Your task to perform on an android device: open app "Airtel Thanks" (install if not already installed) Image 0: 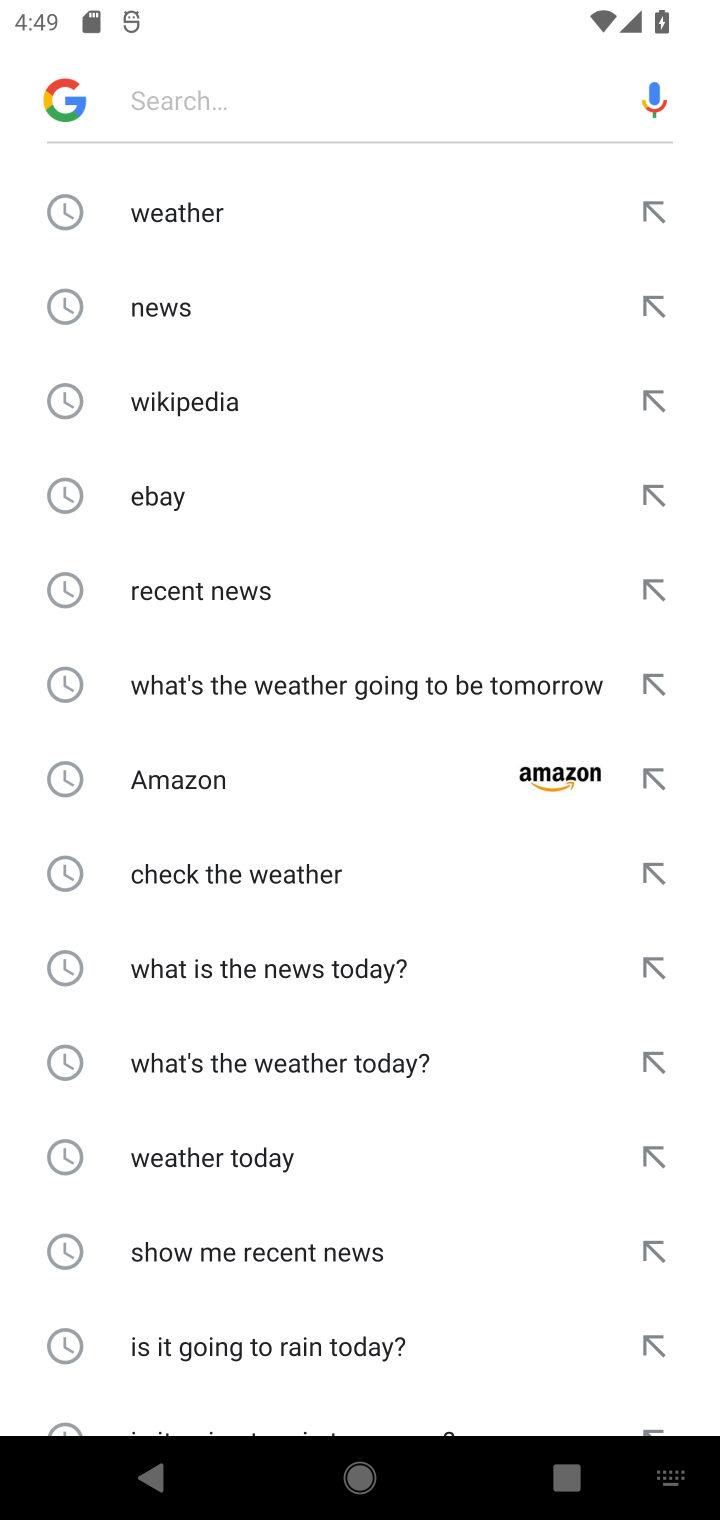
Step 0: press home button
Your task to perform on an android device: open app "Airtel Thanks" (install if not already installed) Image 1: 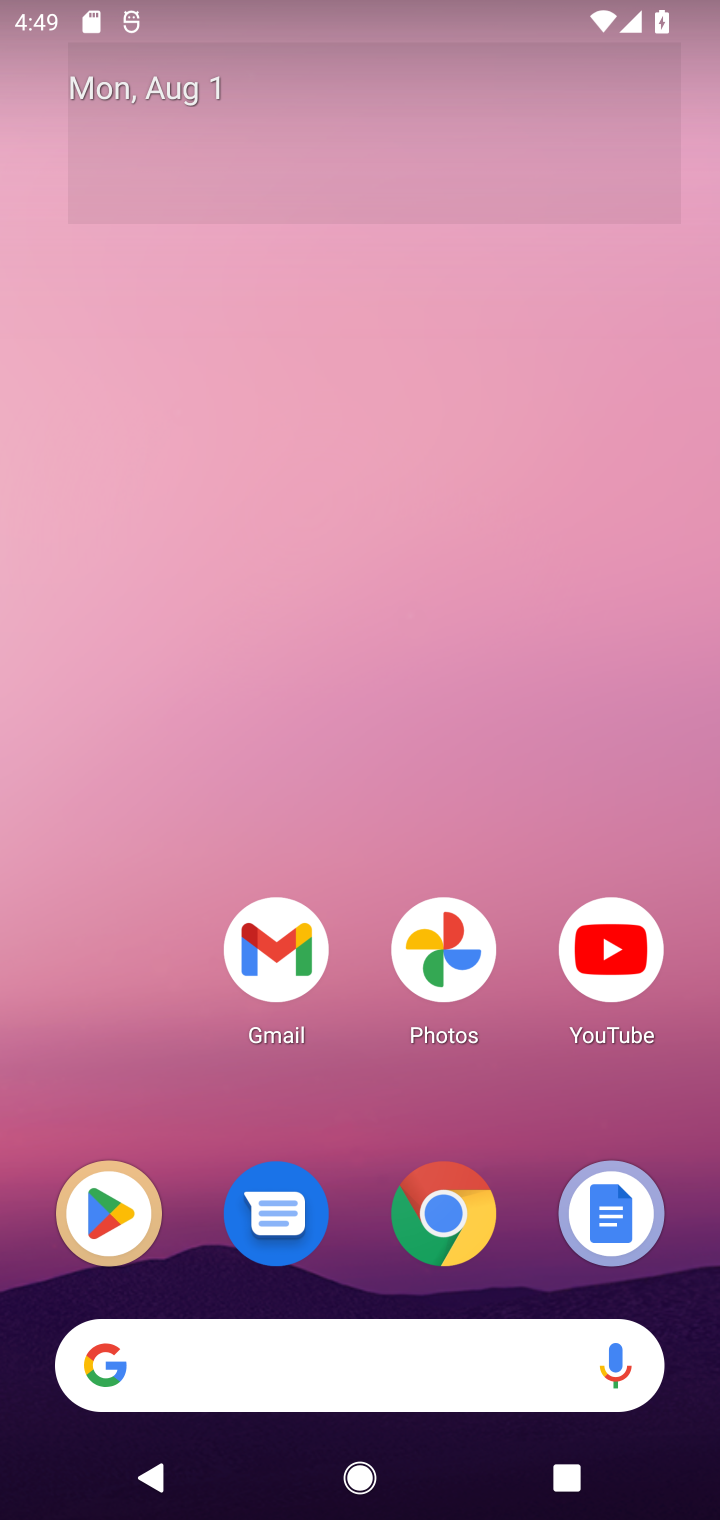
Step 1: drag from (469, 1077) to (538, 108)
Your task to perform on an android device: open app "Airtel Thanks" (install if not already installed) Image 2: 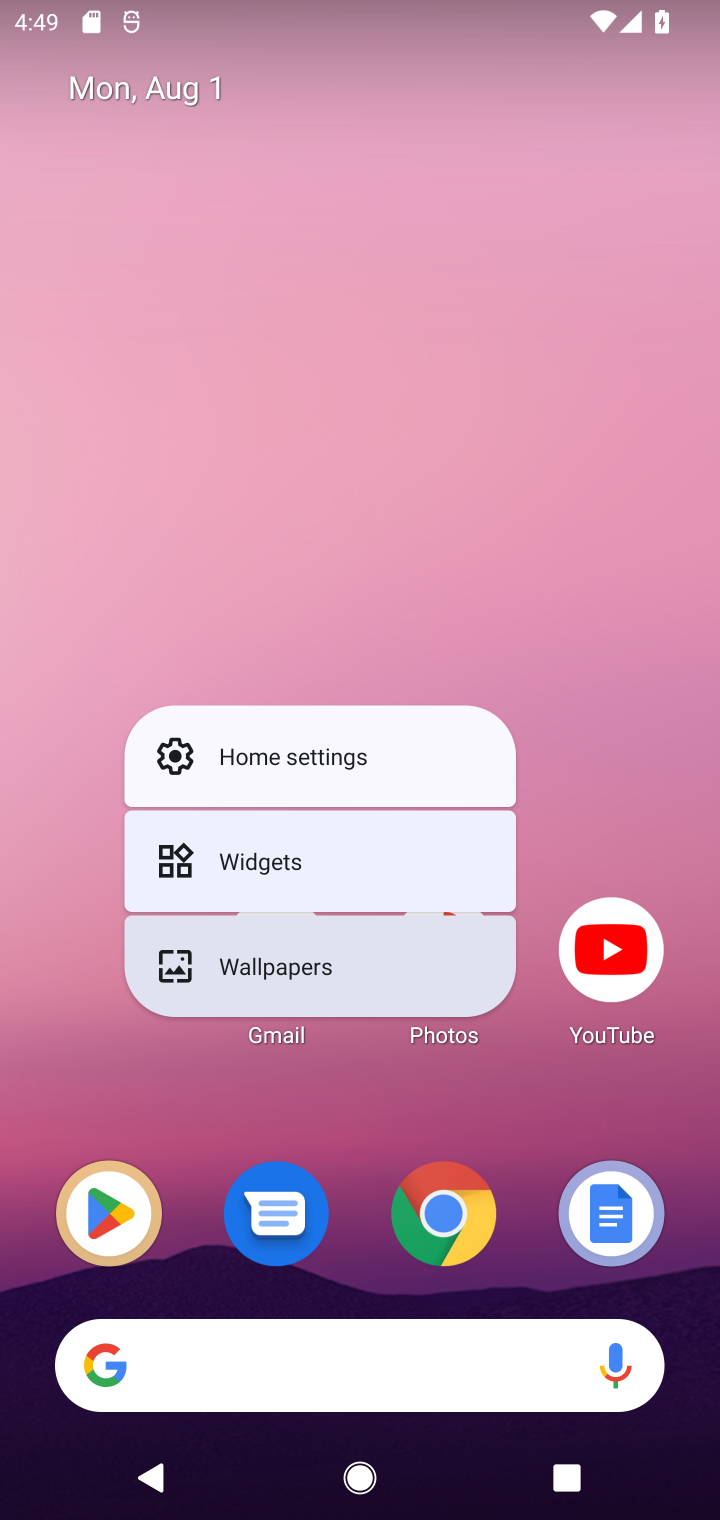
Step 2: click (555, 400)
Your task to perform on an android device: open app "Airtel Thanks" (install if not already installed) Image 3: 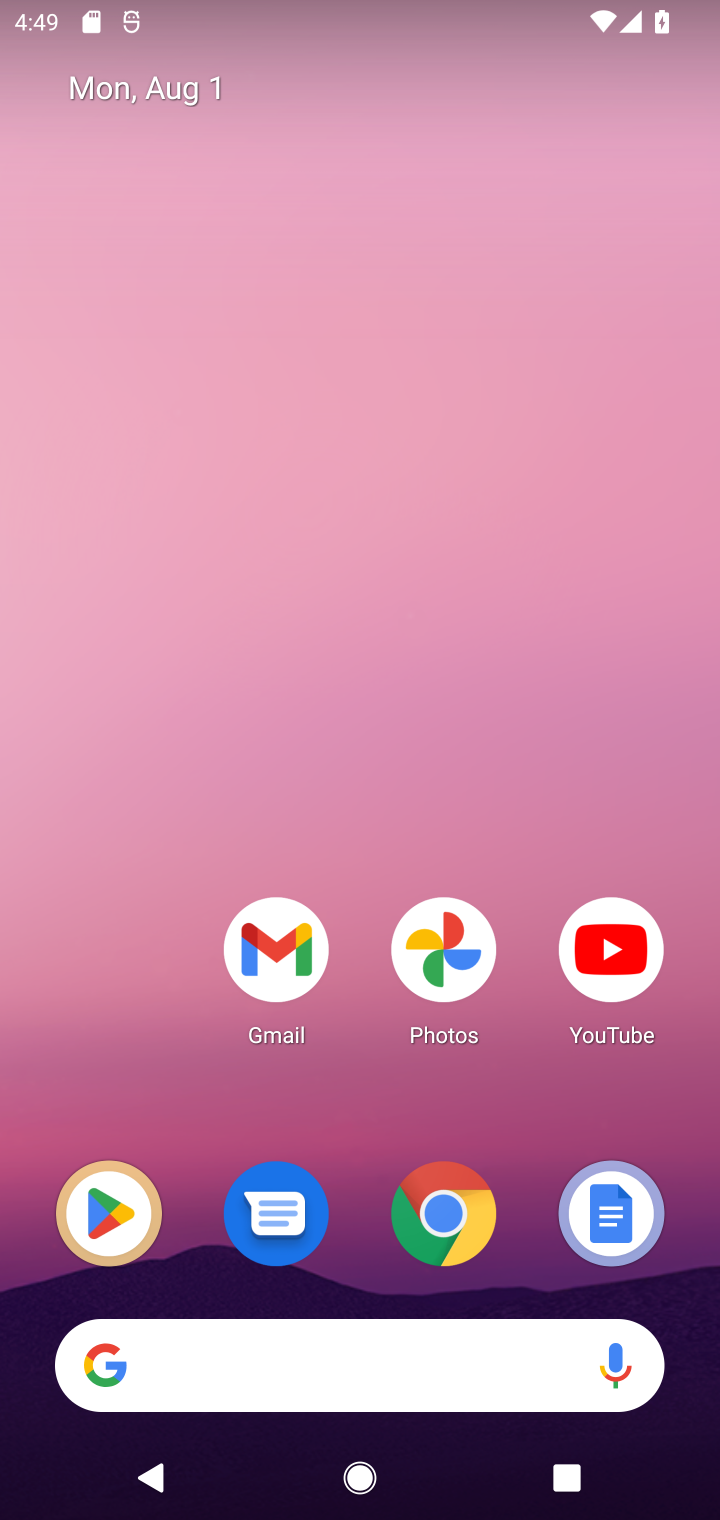
Step 3: drag from (537, 1091) to (552, 0)
Your task to perform on an android device: open app "Airtel Thanks" (install if not already installed) Image 4: 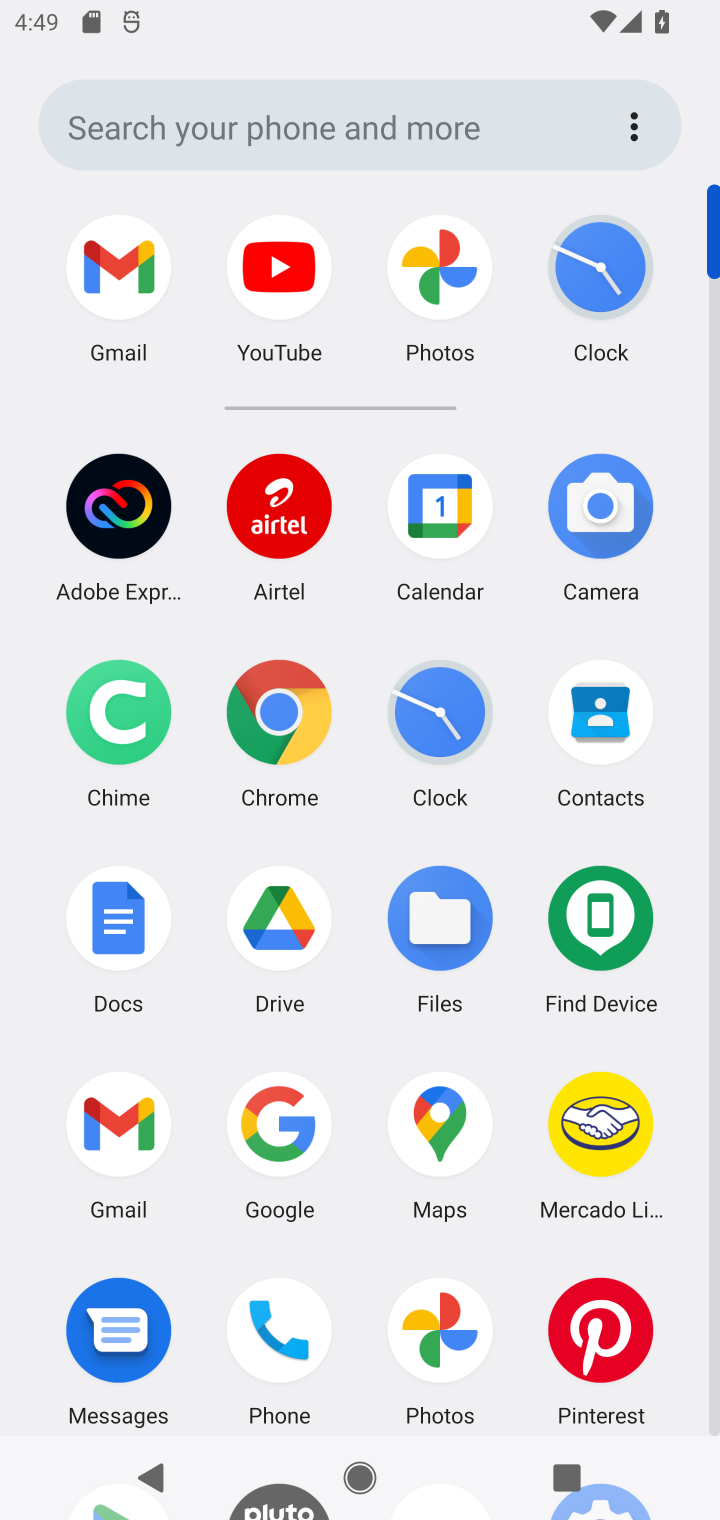
Step 4: drag from (369, 1186) to (453, 418)
Your task to perform on an android device: open app "Airtel Thanks" (install if not already installed) Image 5: 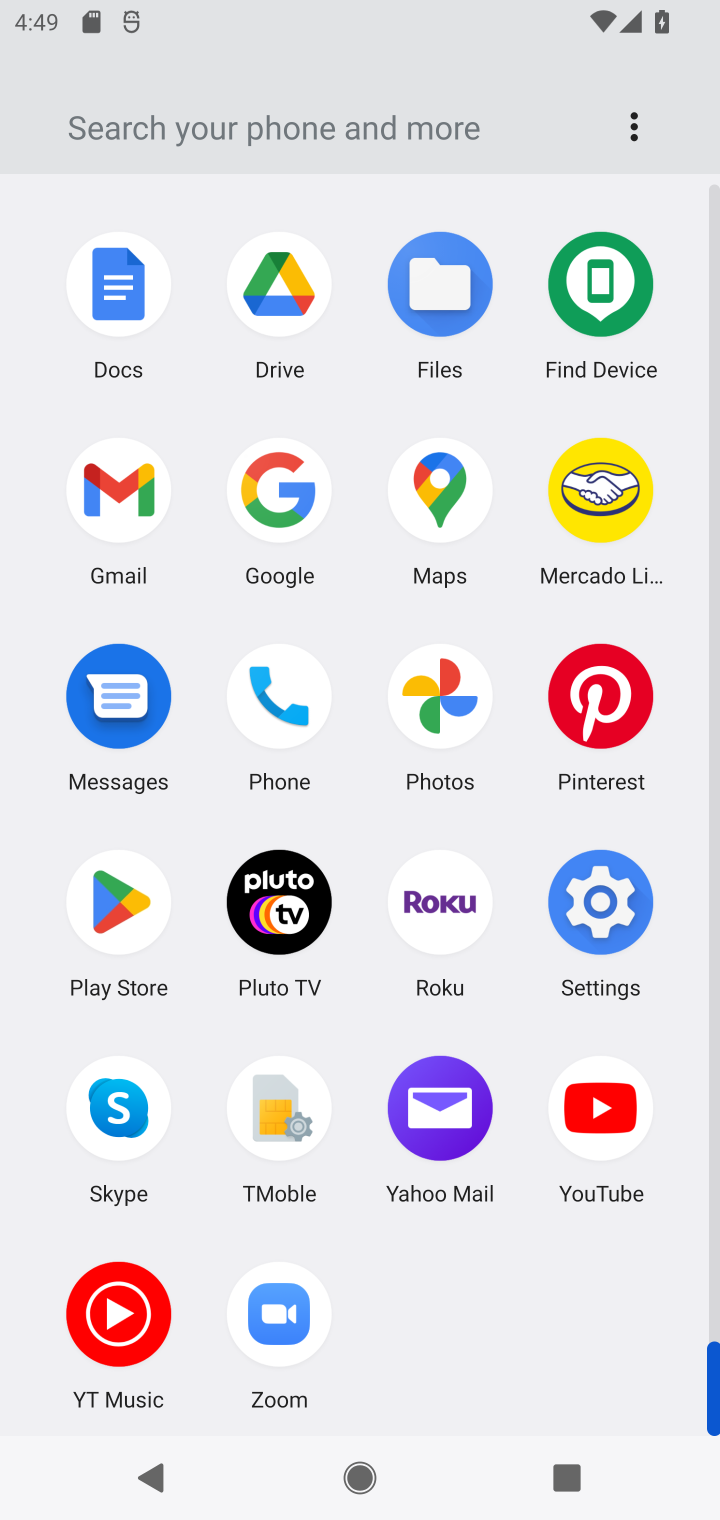
Step 5: click (146, 888)
Your task to perform on an android device: open app "Airtel Thanks" (install if not already installed) Image 6: 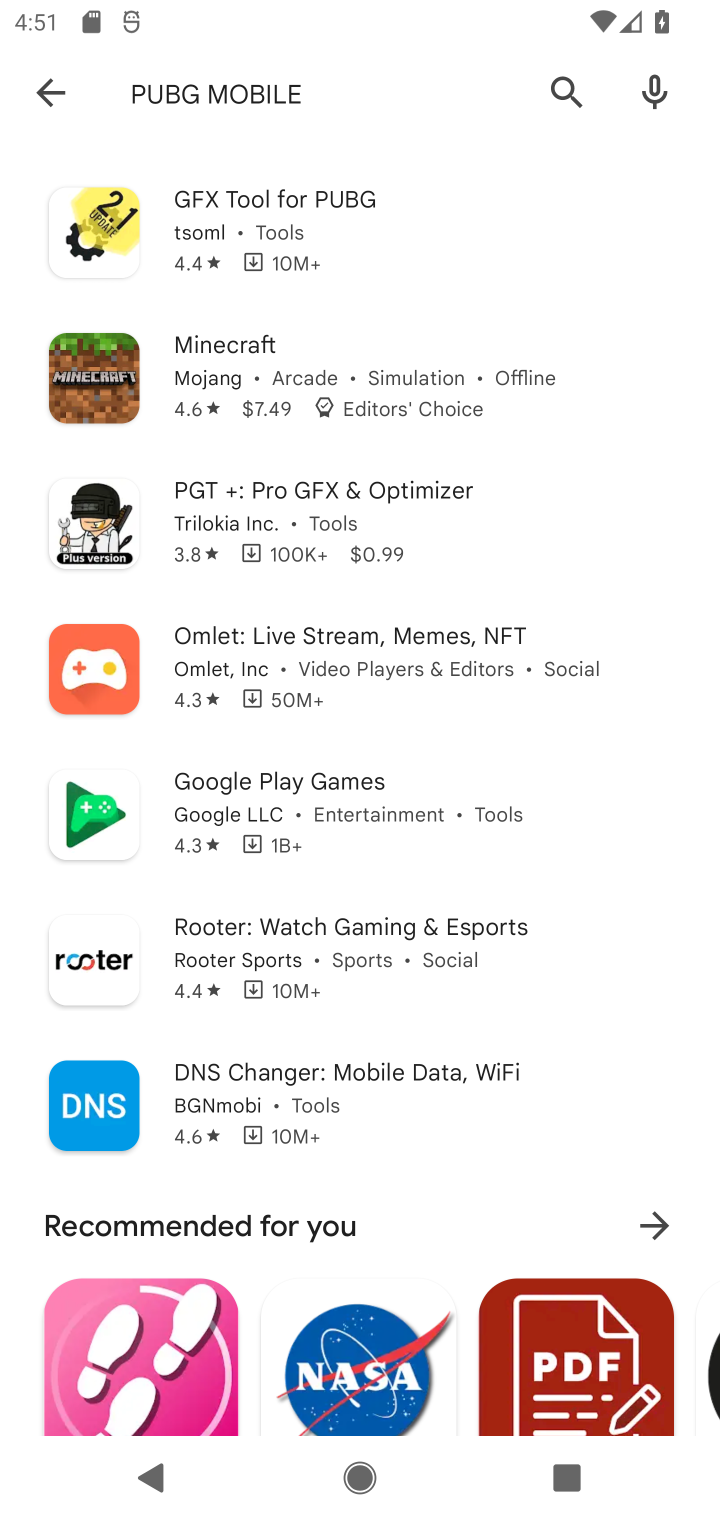
Step 6: task complete